Your task to perform on an android device: search for starred emails in the gmail app Image 0: 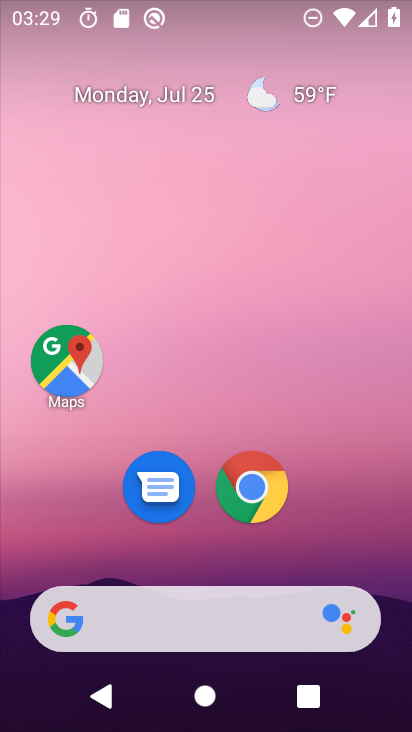
Step 0: drag from (173, 482) to (256, 144)
Your task to perform on an android device: search for starred emails in the gmail app Image 1: 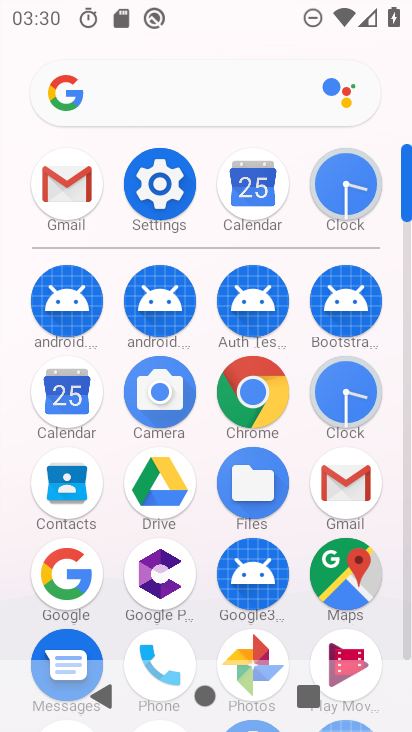
Step 1: click (345, 472)
Your task to perform on an android device: search for starred emails in the gmail app Image 2: 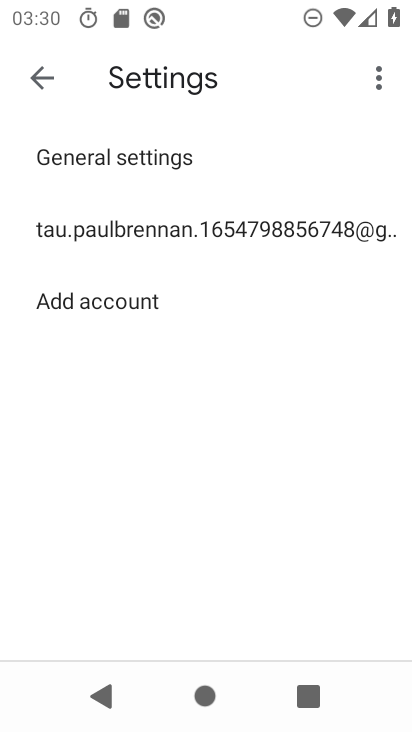
Step 2: click (155, 246)
Your task to perform on an android device: search for starred emails in the gmail app Image 3: 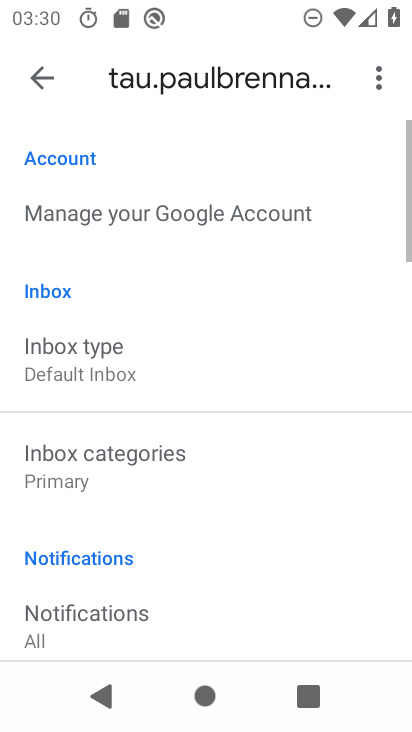
Step 3: click (55, 67)
Your task to perform on an android device: search for starred emails in the gmail app Image 4: 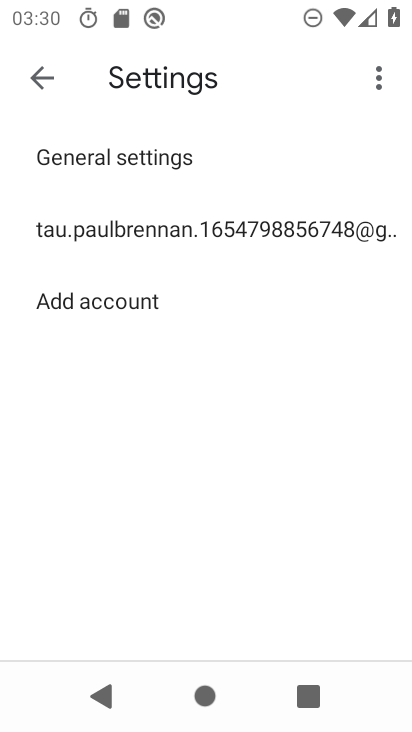
Step 4: click (34, 82)
Your task to perform on an android device: search for starred emails in the gmail app Image 5: 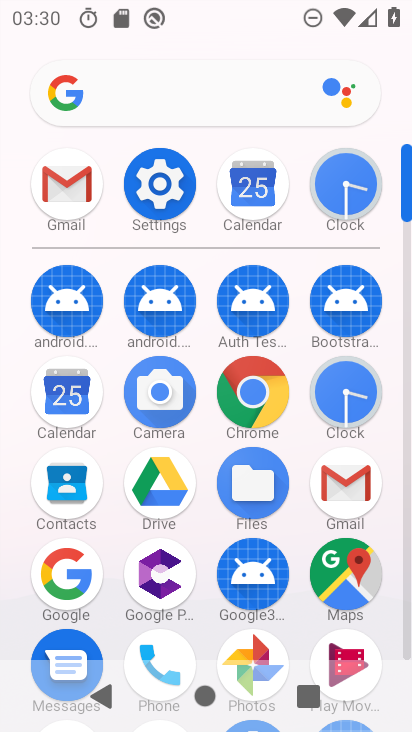
Step 5: click (57, 178)
Your task to perform on an android device: search for starred emails in the gmail app Image 6: 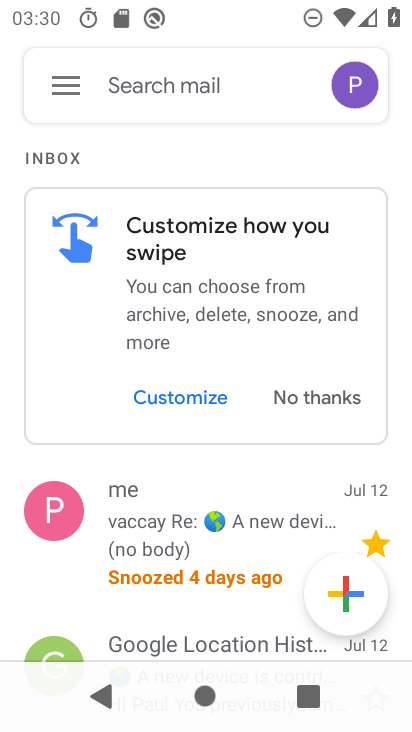
Step 6: click (45, 97)
Your task to perform on an android device: search for starred emails in the gmail app Image 7: 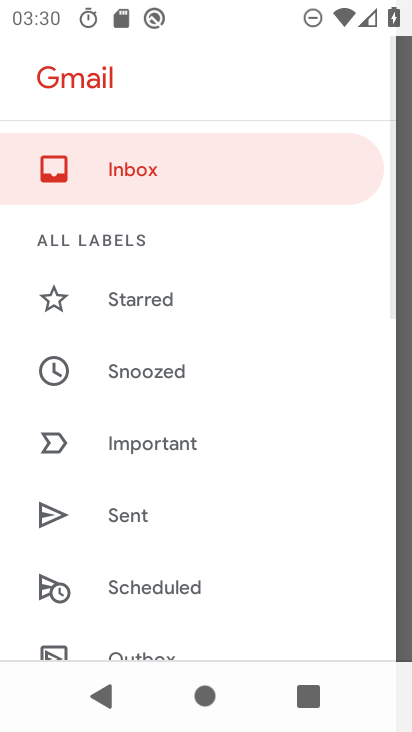
Step 7: click (153, 310)
Your task to perform on an android device: search for starred emails in the gmail app Image 8: 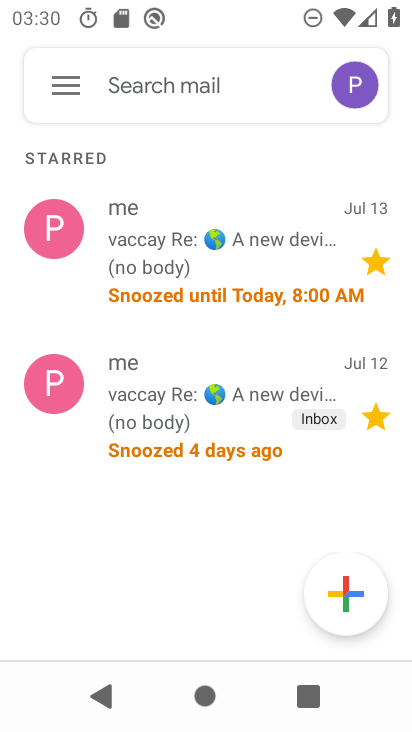
Step 8: task complete